Your task to perform on an android device: open the mobile data screen to see how much data has been used Image 0: 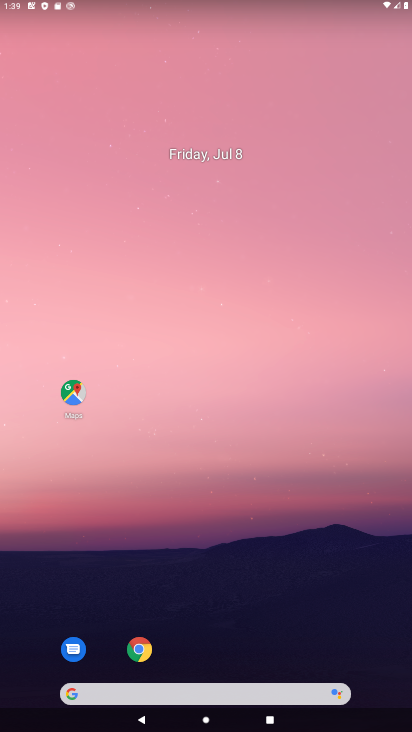
Step 0: drag from (170, 411) to (264, 188)
Your task to perform on an android device: open the mobile data screen to see how much data has been used Image 1: 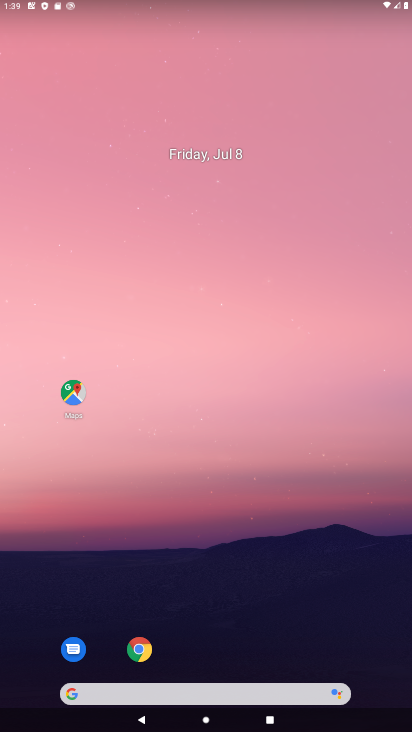
Step 1: drag from (45, 646) to (255, 166)
Your task to perform on an android device: open the mobile data screen to see how much data has been used Image 2: 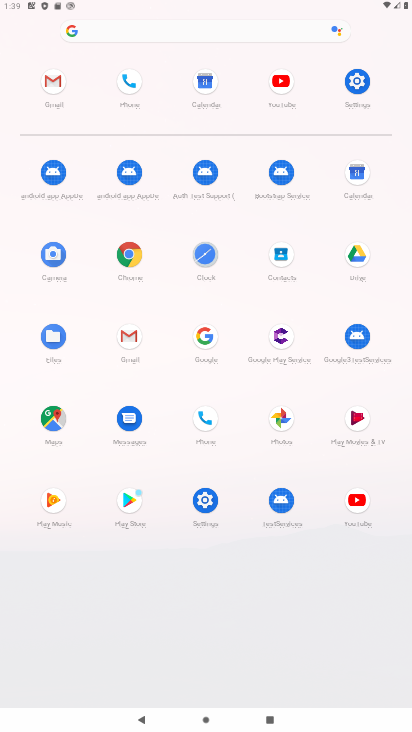
Step 2: click (194, 515)
Your task to perform on an android device: open the mobile data screen to see how much data has been used Image 3: 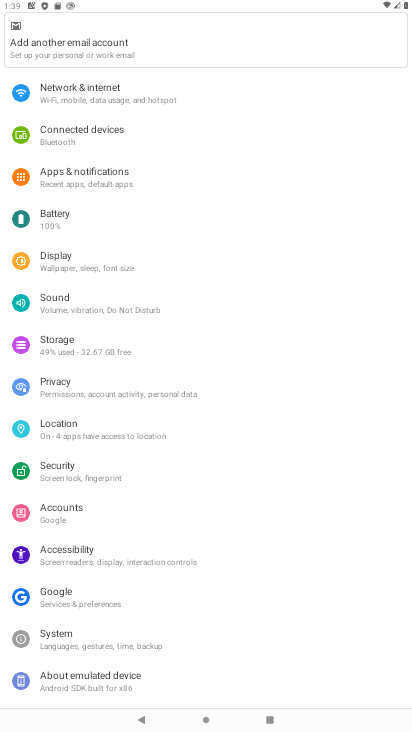
Step 3: click (70, 95)
Your task to perform on an android device: open the mobile data screen to see how much data has been used Image 4: 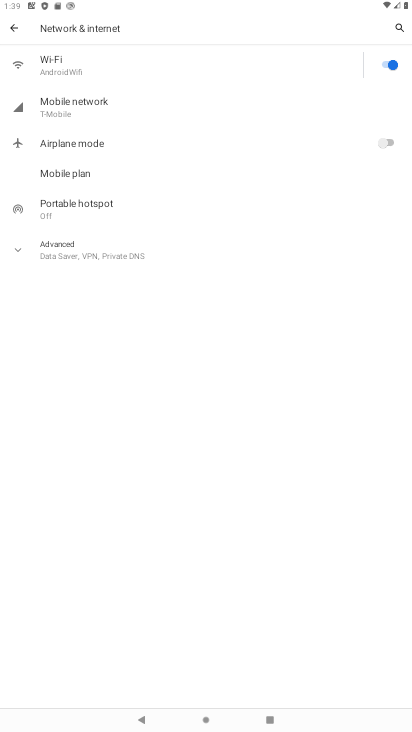
Step 4: click (86, 106)
Your task to perform on an android device: open the mobile data screen to see how much data has been used Image 5: 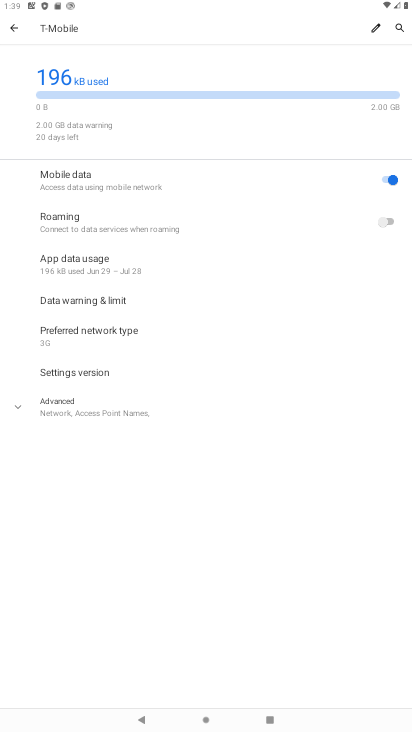
Step 5: task complete